Your task to perform on an android device: Search for pizza restaurants on Maps Image 0: 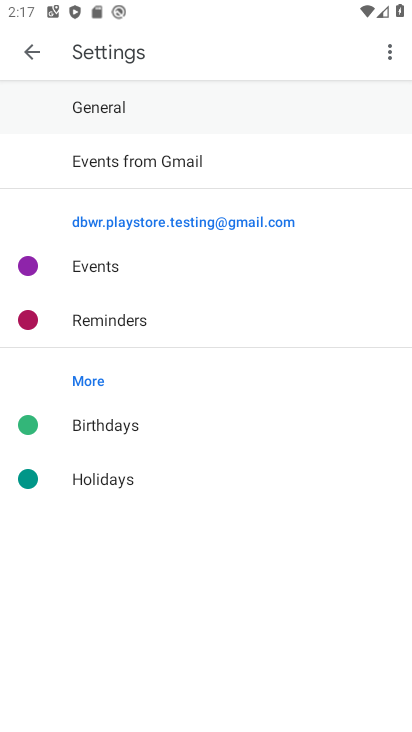
Step 0: press back button
Your task to perform on an android device: Search for pizza restaurants on Maps Image 1: 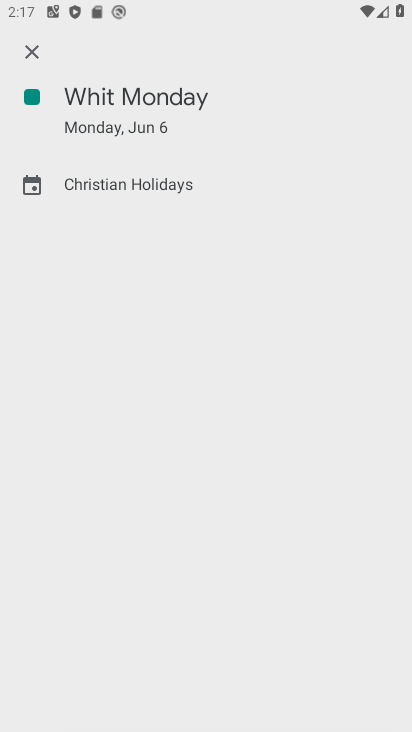
Step 1: press back button
Your task to perform on an android device: Search for pizza restaurants on Maps Image 2: 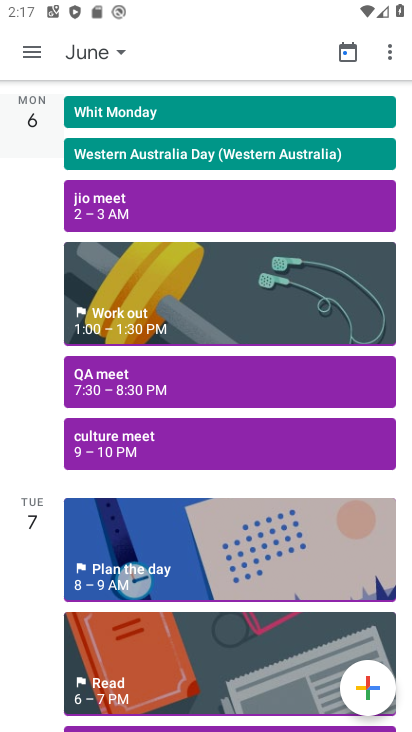
Step 2: press back button
Your task to perform on an android device: Search for pizza restaurants on Maps Image 3: 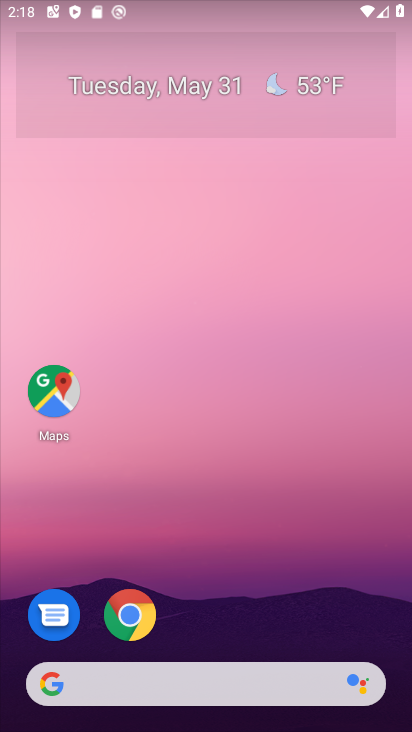
Step 3: click (45, 388)
Your task to perform on an android device: Search for pizza restaurants on Maps Image 4: 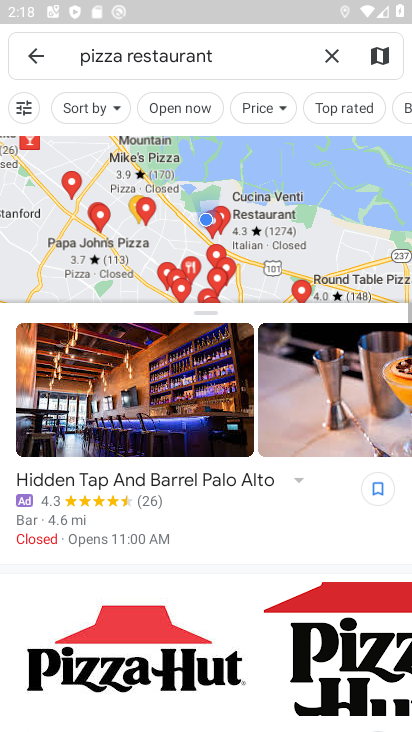
Step 4: task complete